Your task to perform on an android device: toggle airplane mode Image 0: 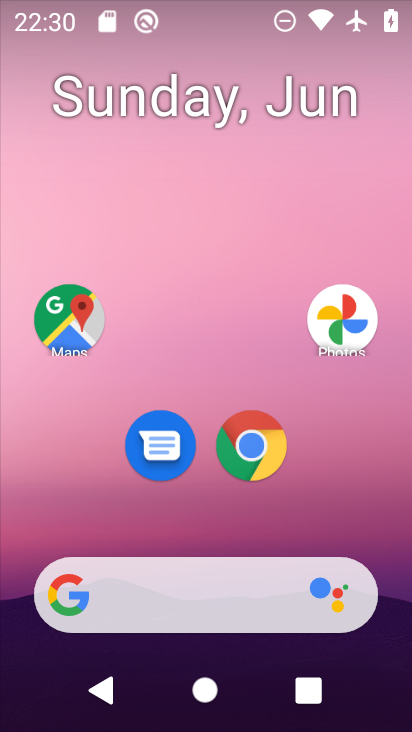
Step 0: press home button
Your task to perform on an android device: toggle airplane mode Image 1: 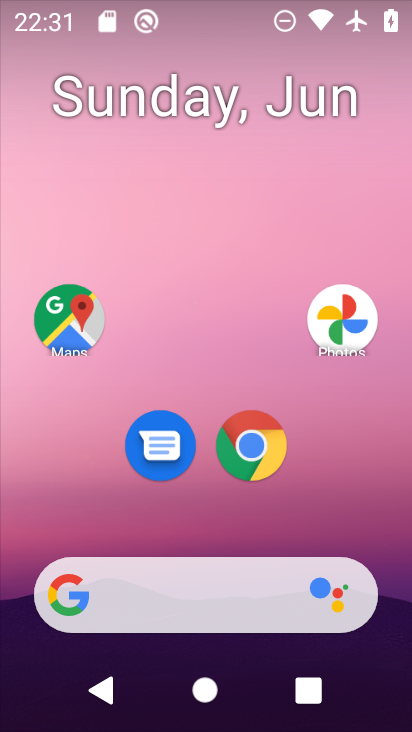
Step 1: drag from (209, 16) to (194, 450)
Your task to perform on an android device: toggle airplane mode Image 2: 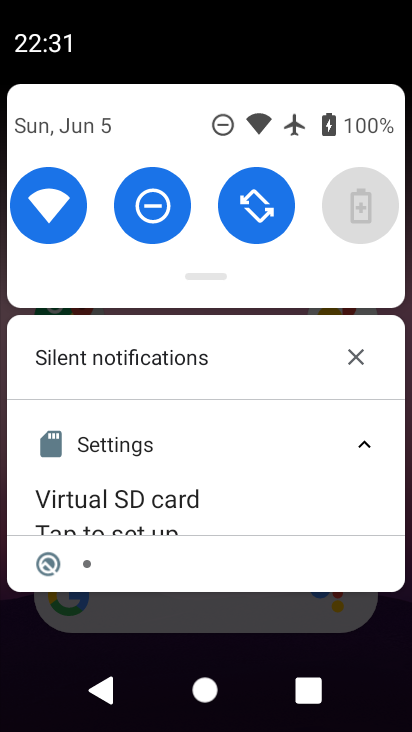
Step 2: drag from (204, 282) to (155, 638)
Your task to perform on an android device: toggle airplane mode Image 3: 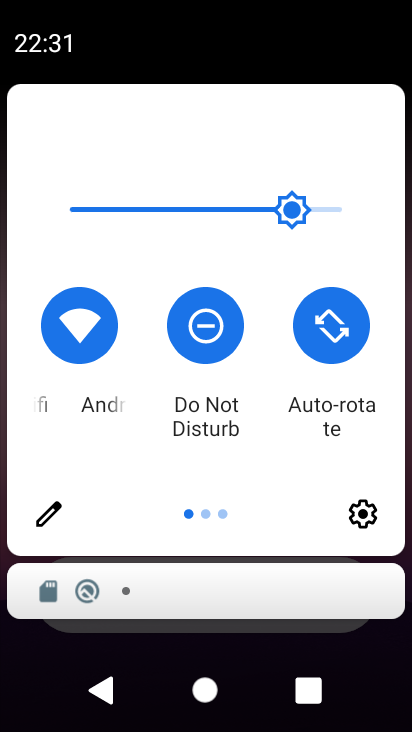
Step 3: drag from (304, 463) to (0, 455)
Your task to perform on an android device: toggle airplane mode Image 4: 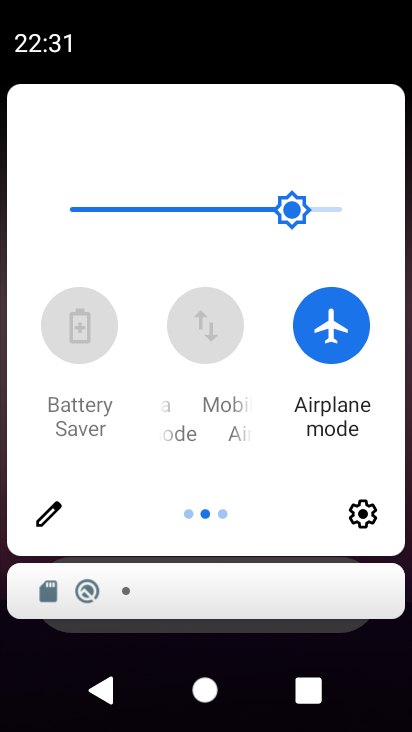
Step 4: click (340, 332)
Your task to perform on an android device: toggle airplane mode Image 5: 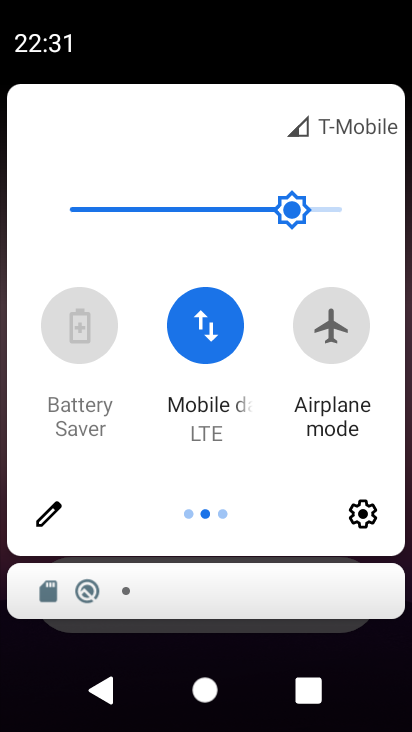
Step 5: task complete